Your task to perform on an android device: check android version Image 0: 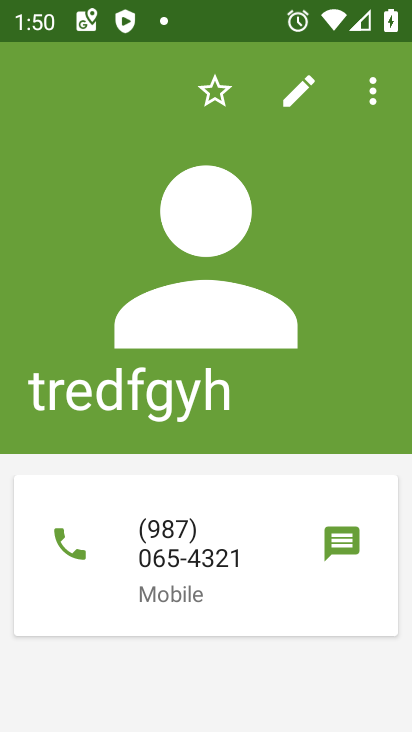
Step 0: press home button
Your task to perform on an android device: check android version Image 1: 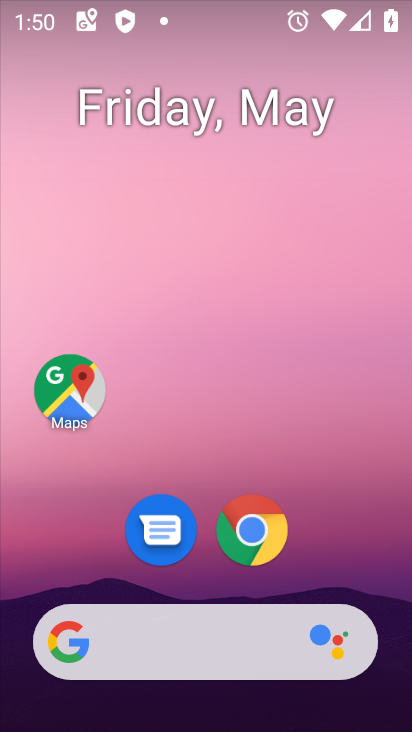
Step 1: drag from (209, 580) to (208, 123)
Your task to perform on an android device: check android version Image 2: 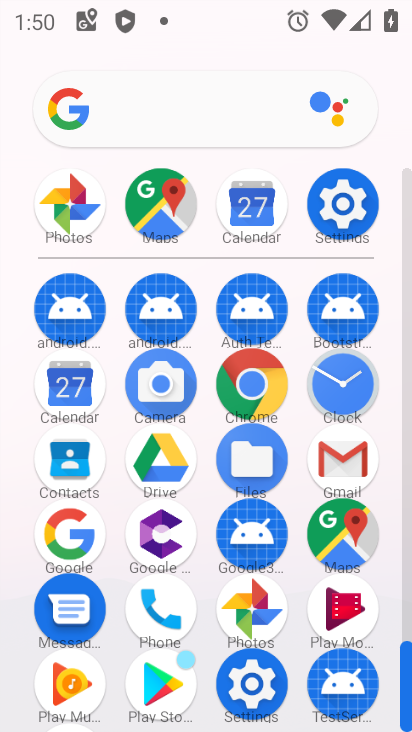
Step 2: click (345, 208)
Your task to perform on an android device: check android version Image 3: 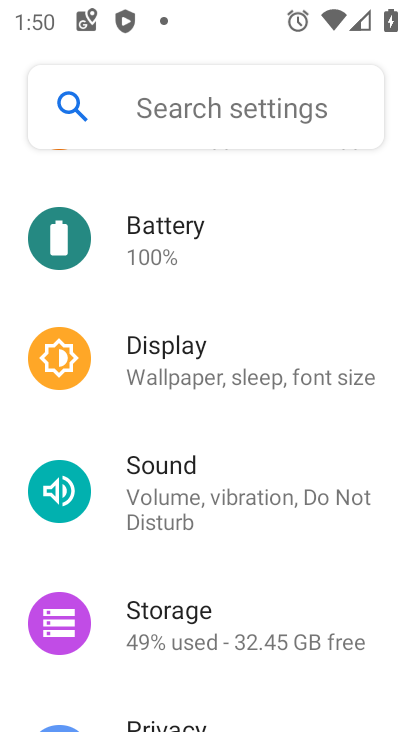
Step 3: drag from (219, 562) to (212, 76)
Your task to perform on an android device: check android version Image 4: 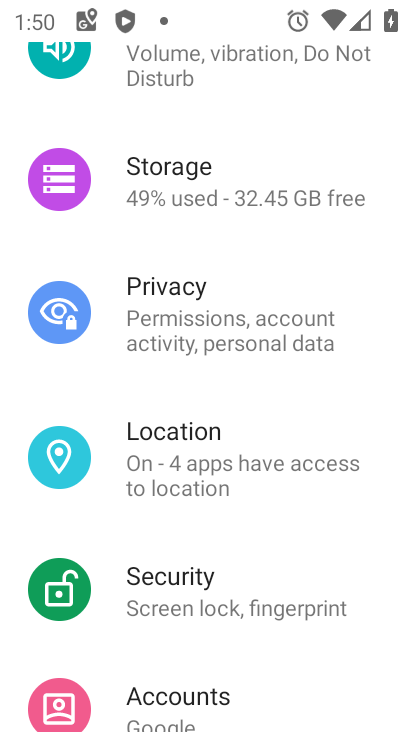
Step 4: drag from (226, 504) to (224, 117)
Your task to perform on an android device: check android version Image 5: 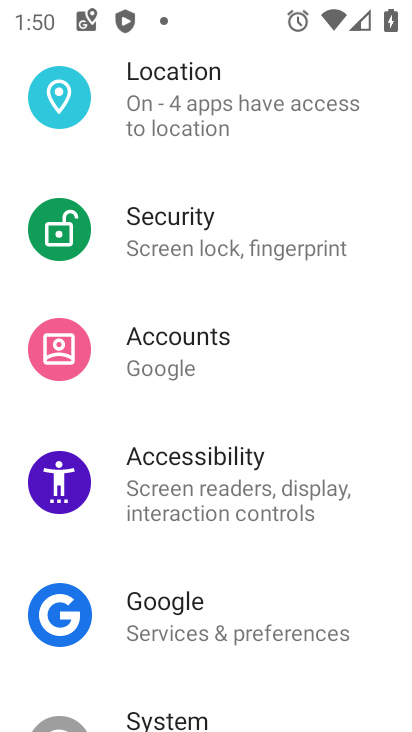
Step 5: drag from (233, 588) to (240, 90)
Your task to perform on an android device: check android version Image 6: 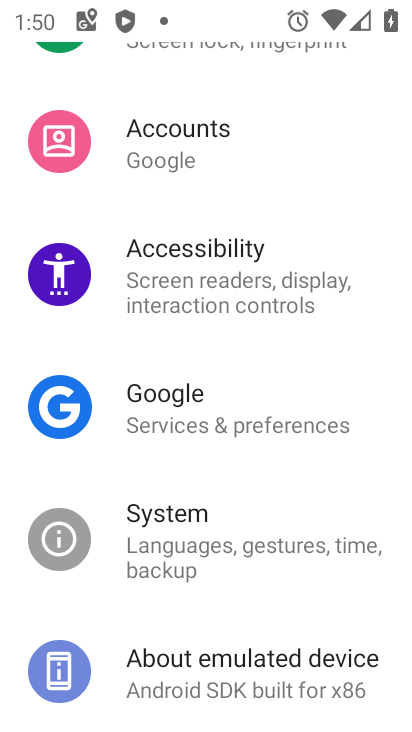
Step 6: click (149, 660)
Your task to perform on an android device: check android version Image 7: 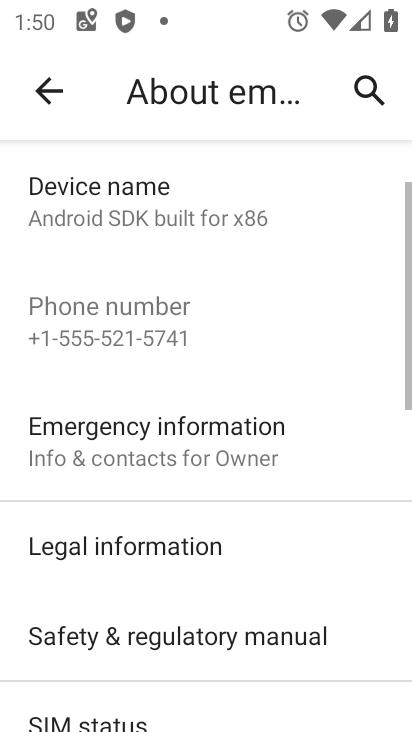
Step 7: drag from (163, 652) to (201, 105)
Your task to perform on an android device: check android version Image 8: 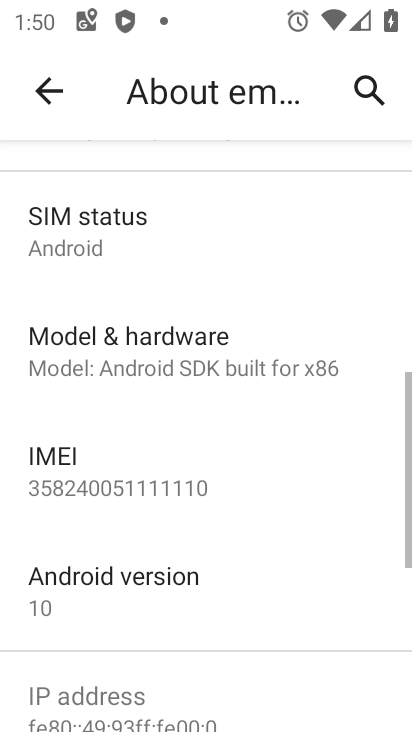
Step 8: click (206, 609)
Your task to perform on an android device: check android version Image 9: 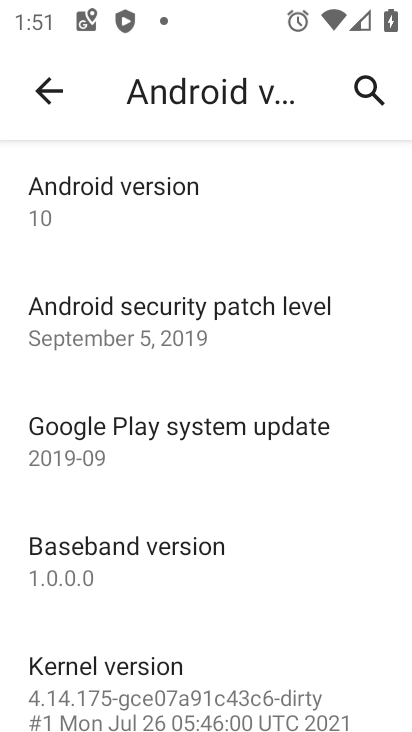
Step 9: task complete